Your task to perform on an android device: install app "DoorDash - Dasher" Image 0: 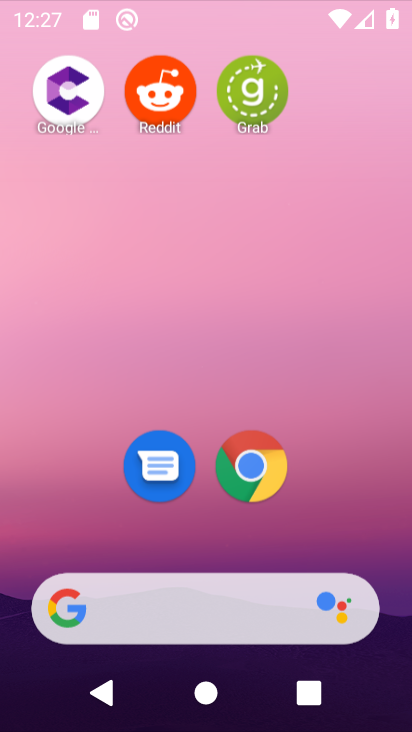
Step 0: press home button
Your task to perform on an android device: install app "DoorDash - Dasher" Image 1: 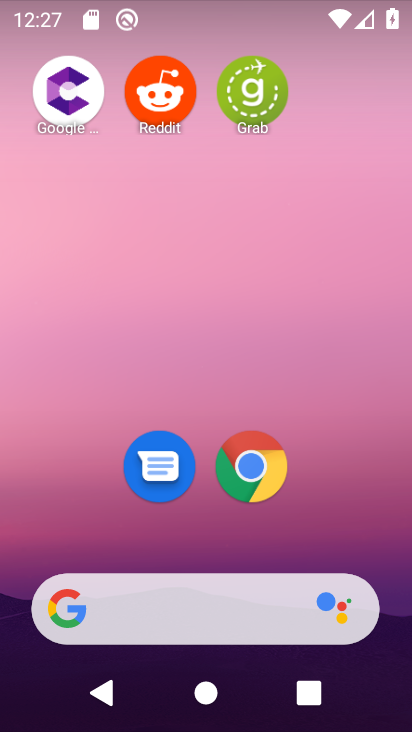
Step 1: drag from (200, 533) to (234, 0)
Your task to perform on an android device: install app "DoorDash - Dasher" Image 2: 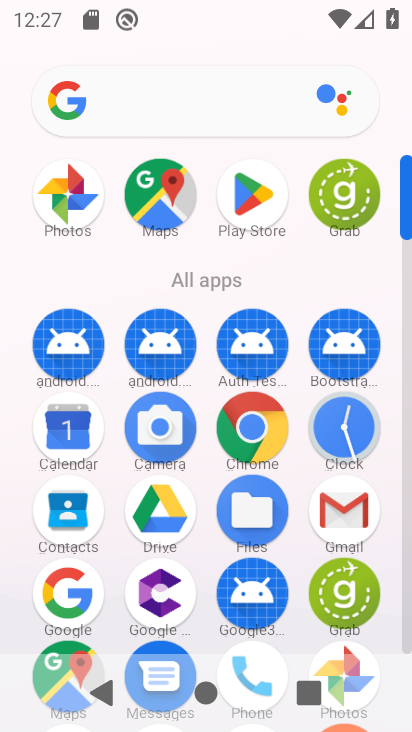
Step 2: click (257, 209)
Your task to perform on an android device: install app "DoorDash - Dasher" Image 3: 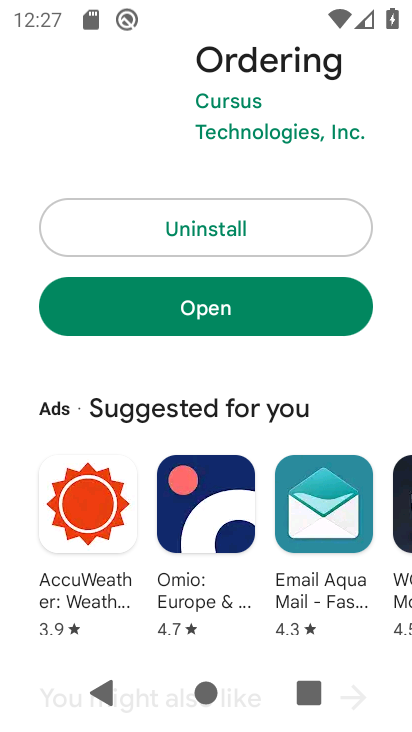
Step 3: drag from (233, 190) to (210, 583)
Your task to perform on an android device: install app "DoorDash - Dasher" Image 4: 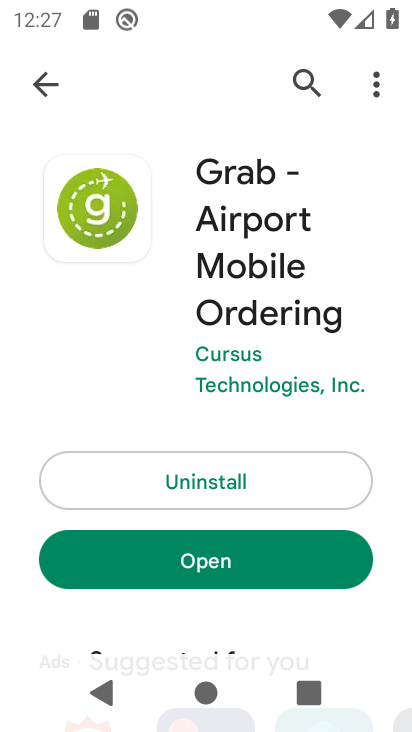
Step 4: click (48, 88)
Your task to perform on an android device: install app "DoorDash - Dasher" Image 5: 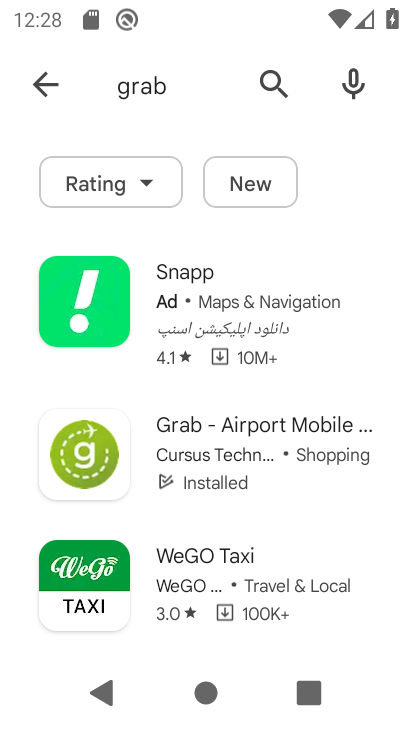
Step 5: click (123, 80)
Your task to perform on an android device: install app "DoorDash - Dasher" Image 6: 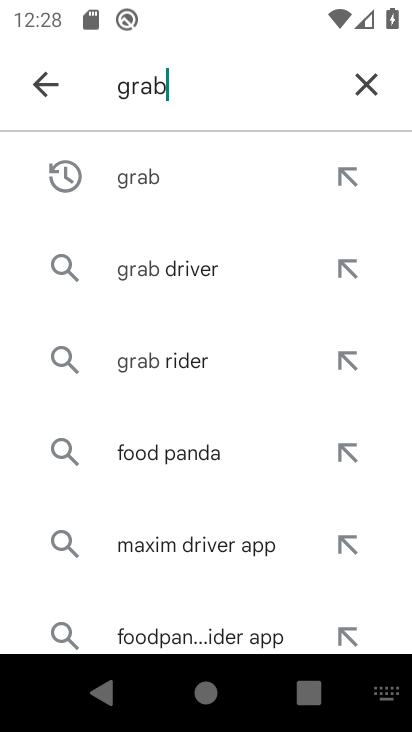
Step 6: click (353, 83)
Your task to perform on an android device: install app "DoorDash - Dasher" Image 7: 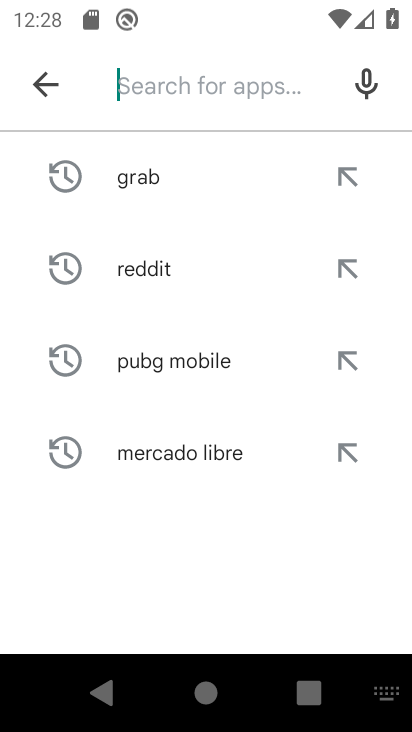
Step 7: type "doordasher-dasher"
Your task to perform on an android device: install app "DoorDash - Dasher" Image 8: 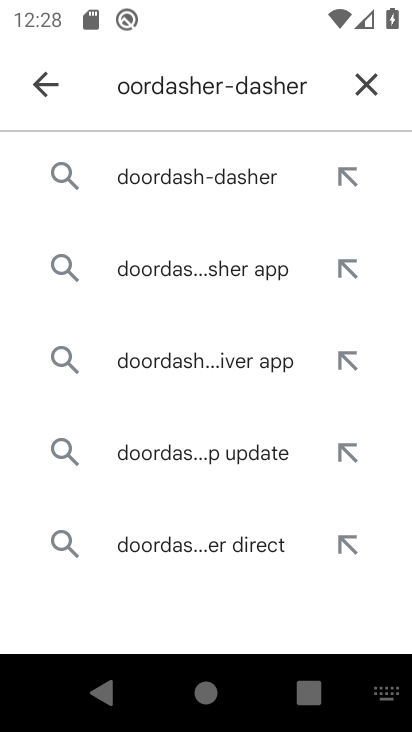
Step 8: click (200, 178)
Your task to perform on an android device: install app "DoorDash - Dasher" Image 9: 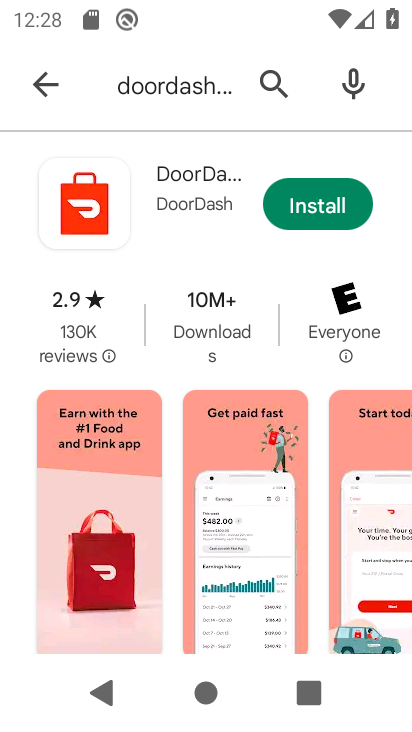
Step 9: click (340, 211)
Your task to perform on an android device: install app "DoorDash - Dasher" Image 10: 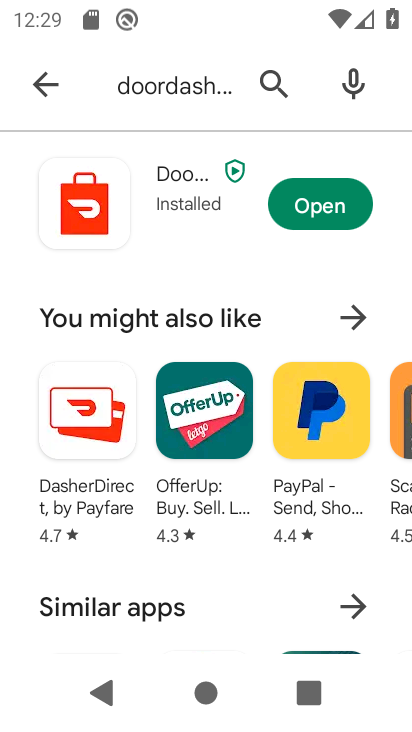
Step 10: task complete